Your task to perform on an android device: turn vacation reply on in the gmail app Image 0: 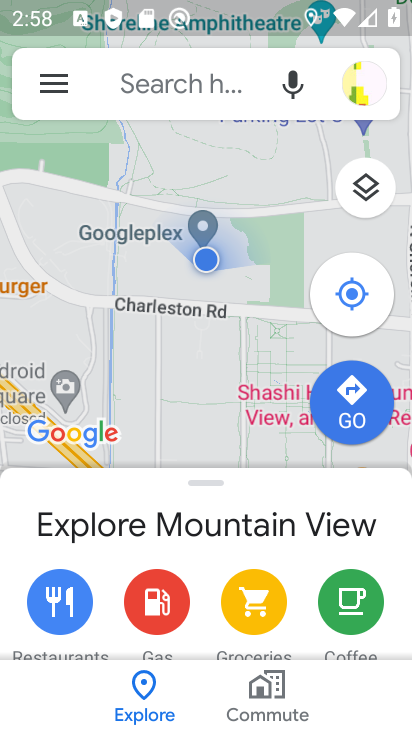
Step 0: press home button
Your task to perform on an android device: turn vacation reply on in the gmail app Image 1: 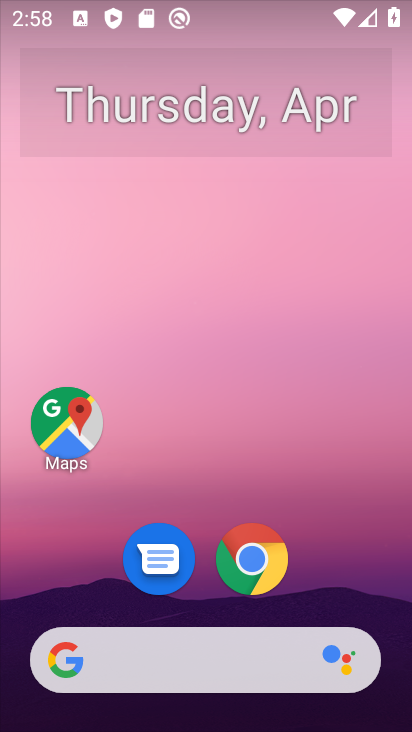
Step 1: drag from (321, 575) to (351, 61)
Your task to perform on an android device: turn vacation reply on in the gmail app Image 2: 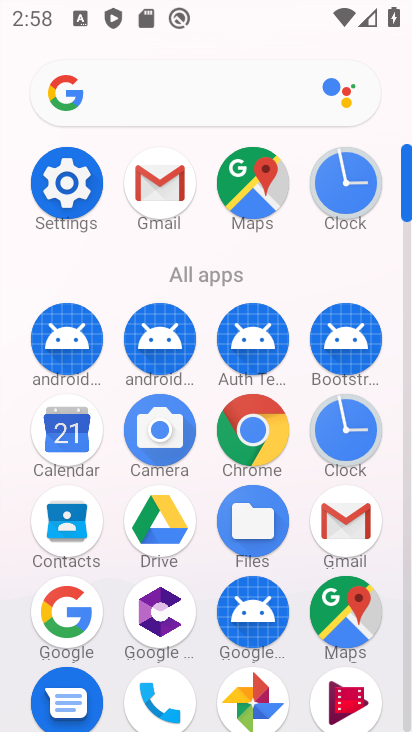
Step 2: click (161, 175)
Your task to perform on an android device: turn vacation reply on in the gmail app Image 3: 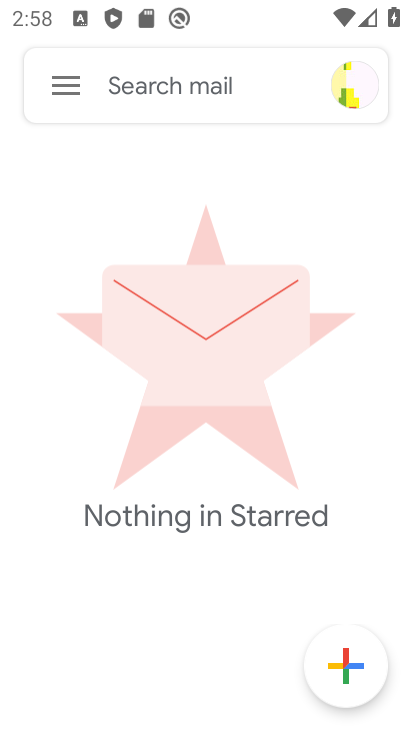
Step 3: click (74, 91)
Your task to perform on an android device: turn vacation reply on in the gmail app Image 4: 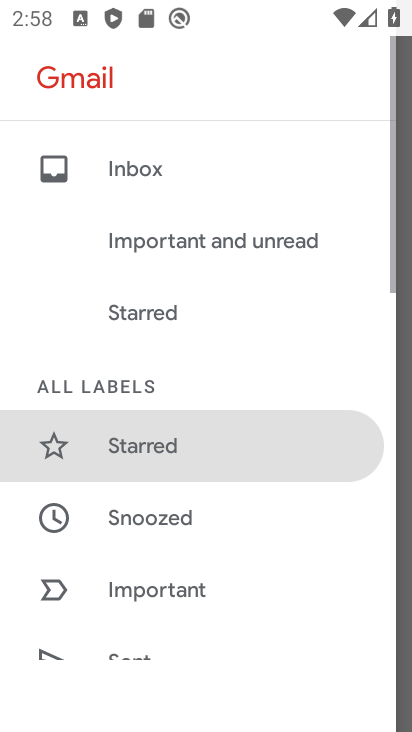
Step 4: drag from (190, 595) to (161, 128)
Your task to perform on an android device: turn vacation reply on in the gmail app Image 5: 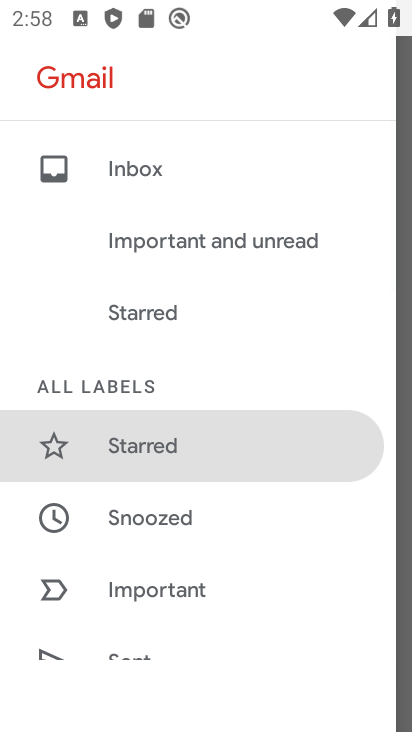
Step 5: drag from (171, 587) to (190, 182)
Your task to perform on an android device: turn vacation reply on in the gmail app Image 6: 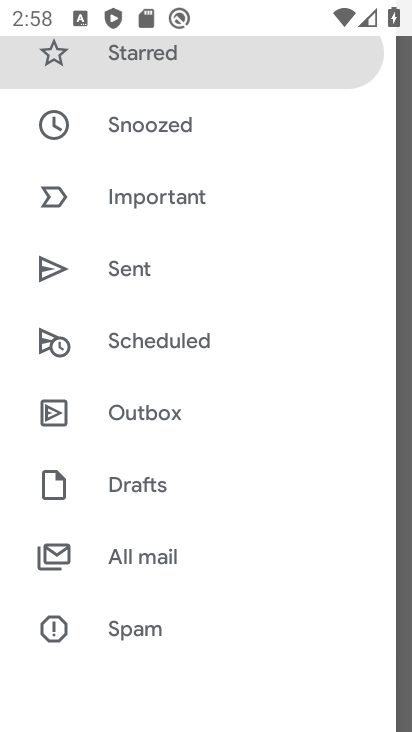
Step 6: drag from (205, 493) to (208, 215)
Your task to perform on an android device: turn vacation reply on in the gmail app Image 7: 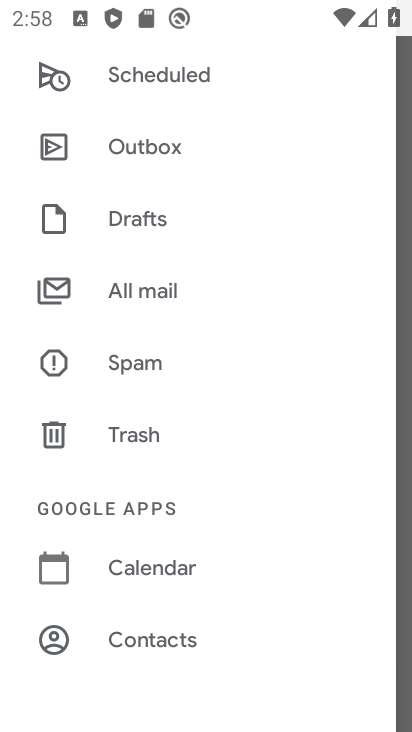
Step 7: drag from (178, 600) to (169, 228)
Your task to perform on an android device: turn vacation reply on in the gmail app Image 8: 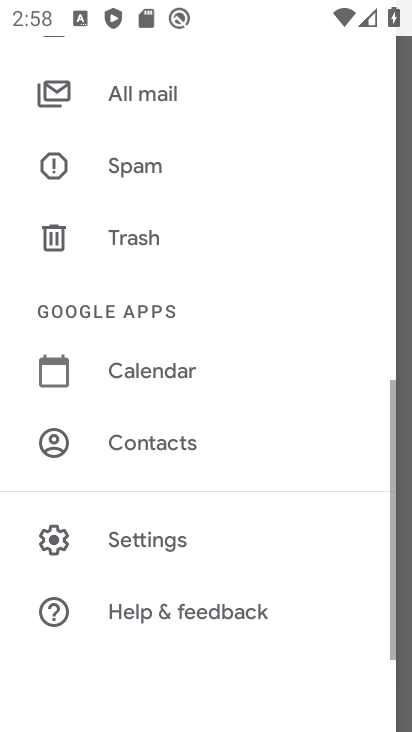
Step 8: click (177, 535)
Your task to perform on an android device: turn vacation reply on in the gmail app Image 9: 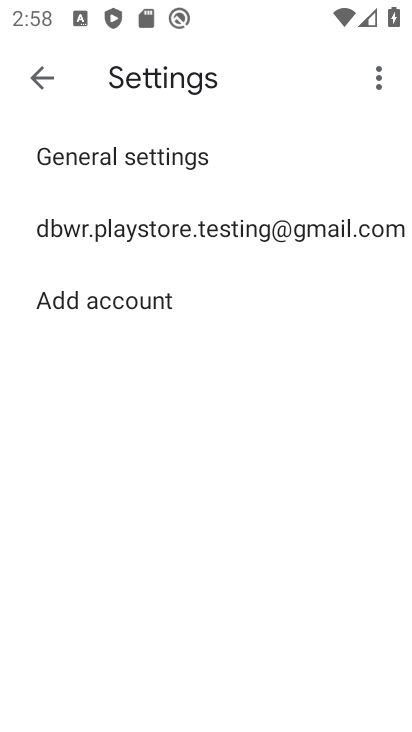
Step 9: click (201, 241)
Your task to perform on an android device: turn vacation reply on in the gmail app Image 10: 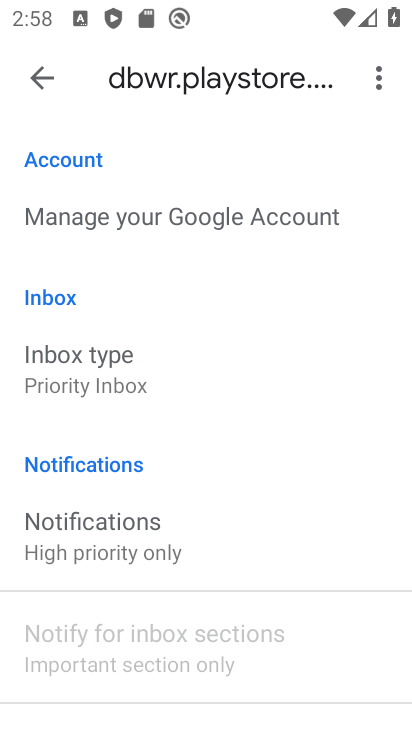
Step 10: drag from (205, 578) to (223, 189)
Your task to perform on an android device: turn vacation reply on in the gmail app Image 11: 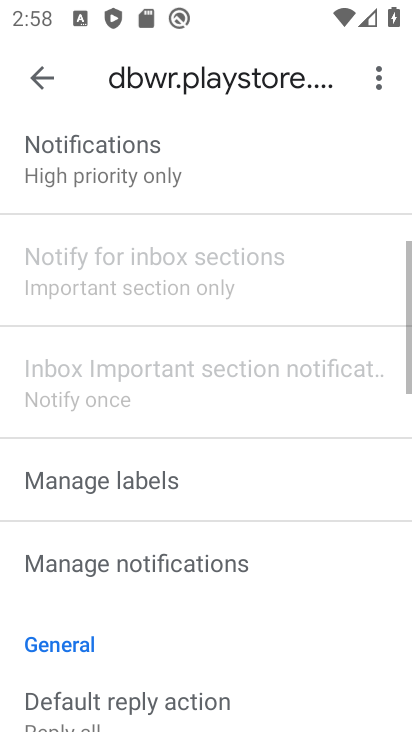
Step 11: drag from (214, 614) to (205, 203)
Your task to perform on an android device: turn vacation reply on in the gmail app Image 12: 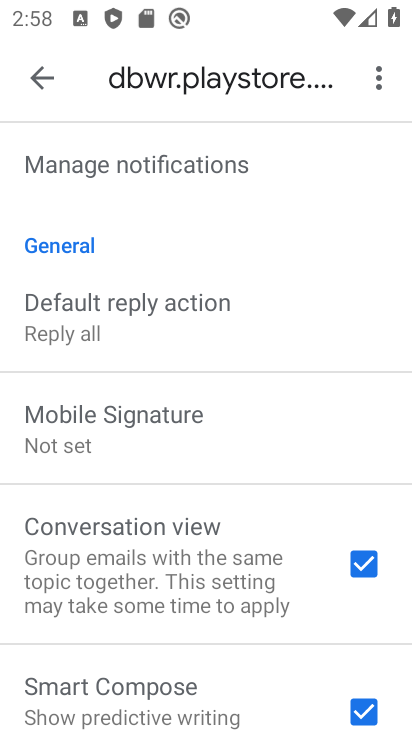
Step 12: drag from (218, 479) to (214, 238)
Your task to perform on an android device: turn vacation reply on in the gmail app Image 13: 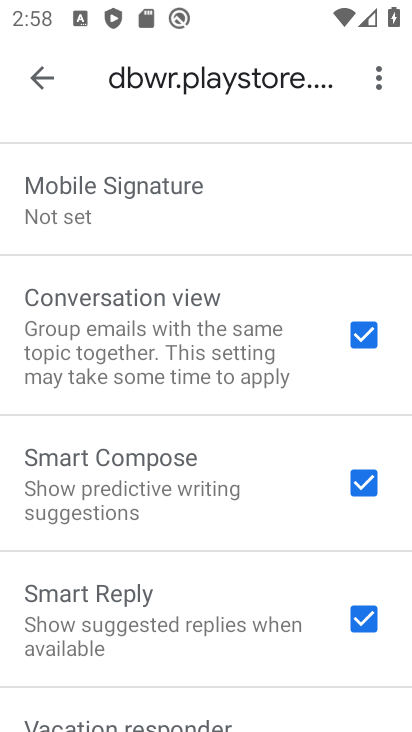
Step 13: drag from (228, 661) to (220, 269)
Your task to perform on an android device: turn vacation reply on in the gmail app Image 14: 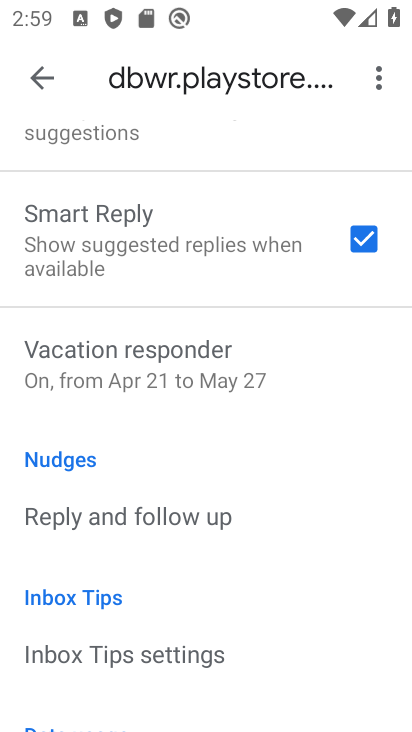
Step 14: click (244, 377)
Your task to perform on an android device: turn vacation reply on in the gmail app Image 15: 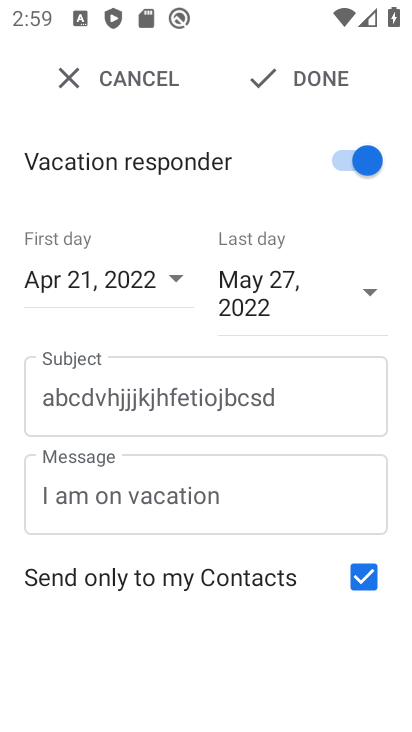
Step 15: click (335, 89)
Your task to perform on an android device: turn vacation reply on in the gmail app Image 16: 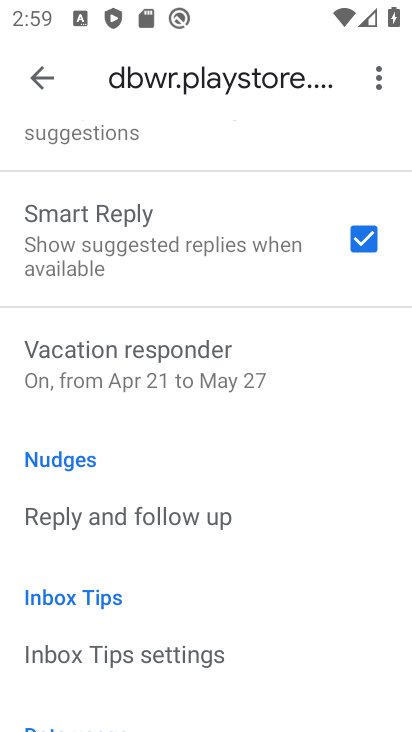
Step 16: task complete